Your task to perform on an android device: turn notification dots off Image 0: 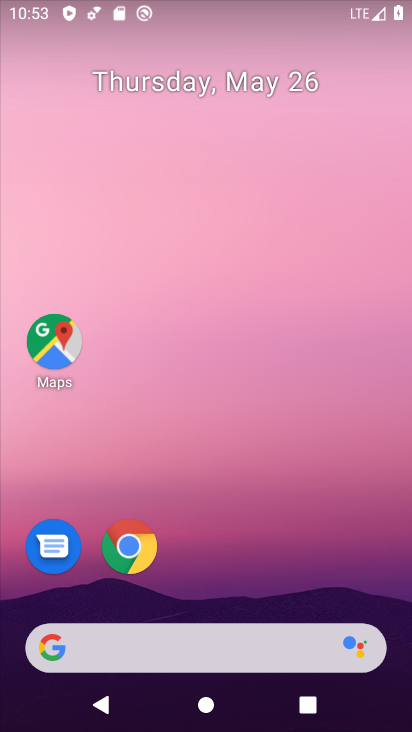
Step 0: drag from (233, 554) to (261, 93)
Your task to perform on an android device: turn notification dots off Image 1: 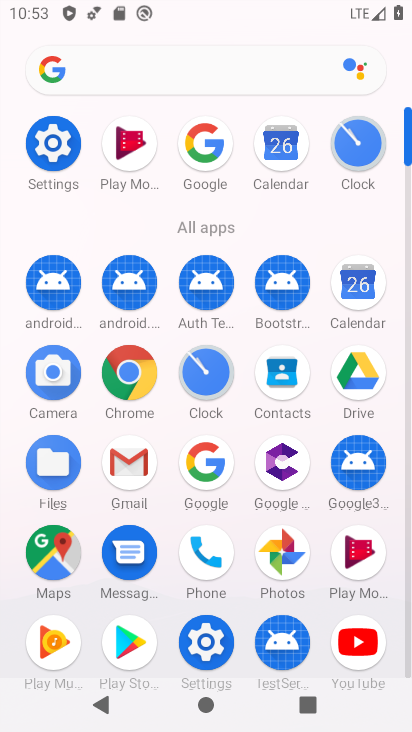
Step 1: click (44, 140)
Your task to perform on an android device: turn notification dots off Image 2: 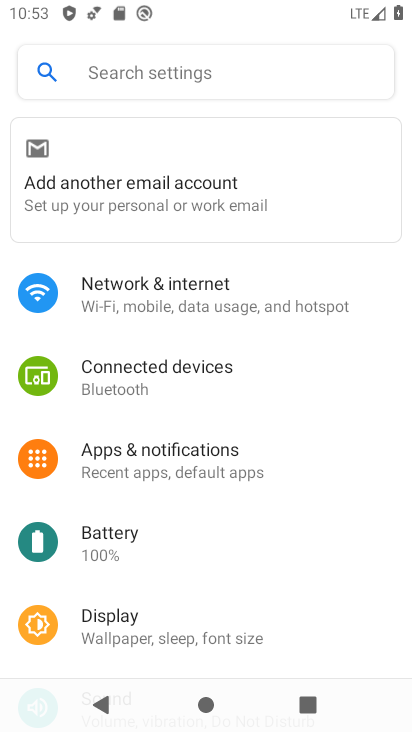
Step 2: click (173, 465)
Your task to perform on an android device: turn notification dots off Image 3: 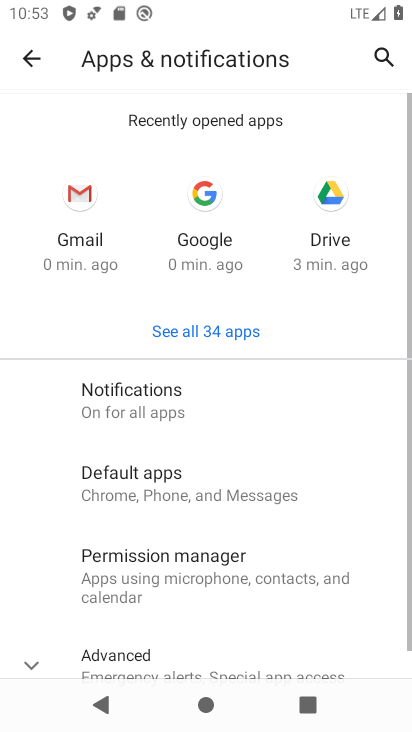
Step 3: click (154, 396)
Your task to perform on an android device: turn notification dots off Image 4: 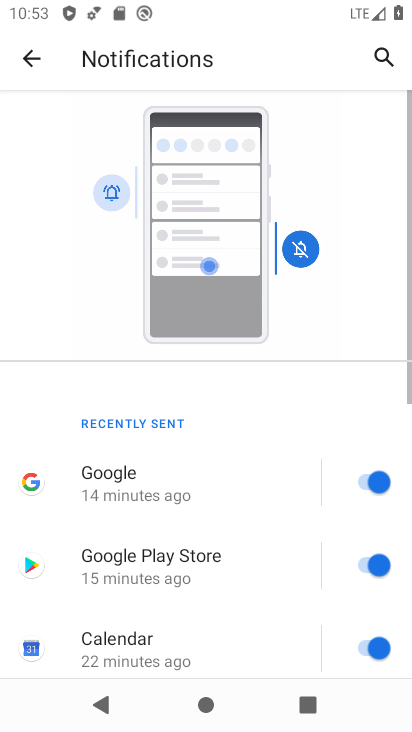
Step 4: drag from (287, 575) to (304, 83)
Your task to perform on an android device: turn notification dots off Image 5: 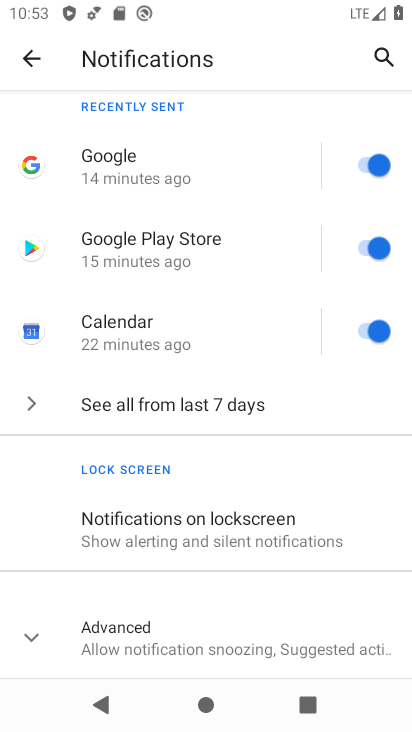
Step 5: click (147, 645)
Your task to perform on an android device: turn notification dots off Image 6: 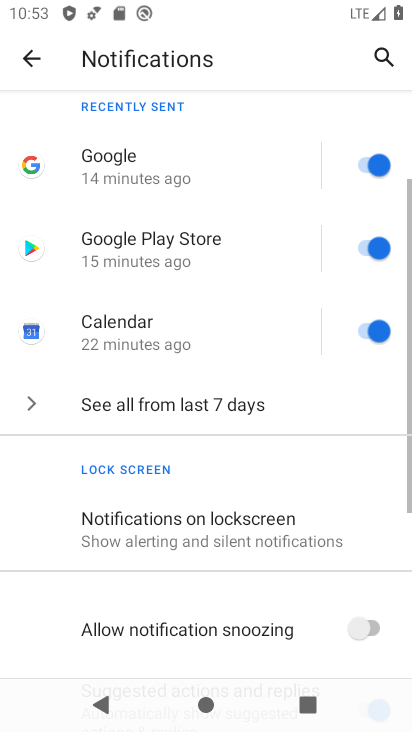
Step 6: drag from (325, 573) to (329, 191)
Your task to perform on an android device: turn notification dots off Image 7: 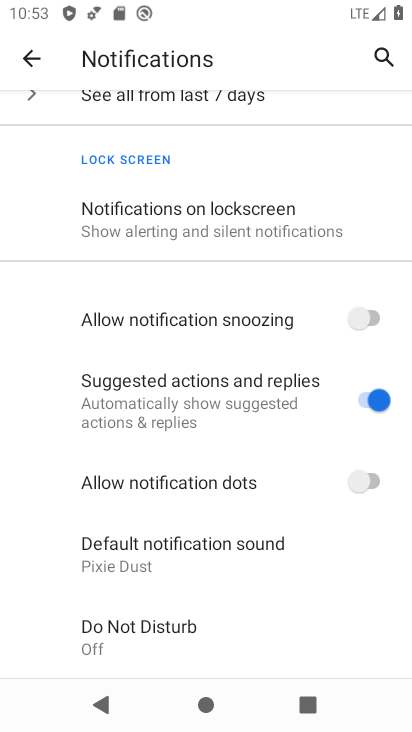
Step 7: click (360, 486)
Your task to perform on an android device: turn notification dots off Image 8: 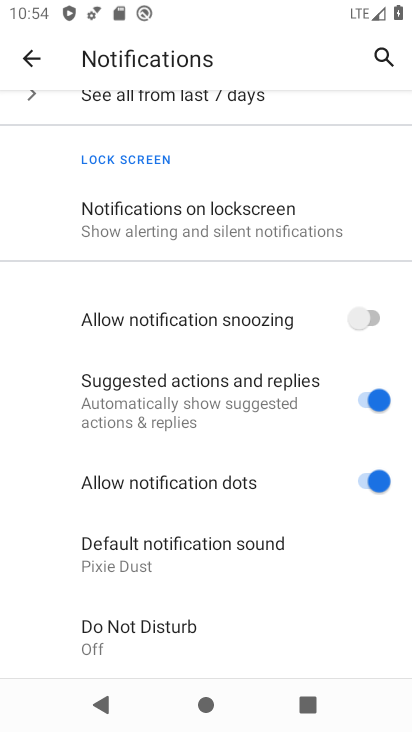
Step 8: task complete